Your task to perform on an android device: Open notification settings Image 0: 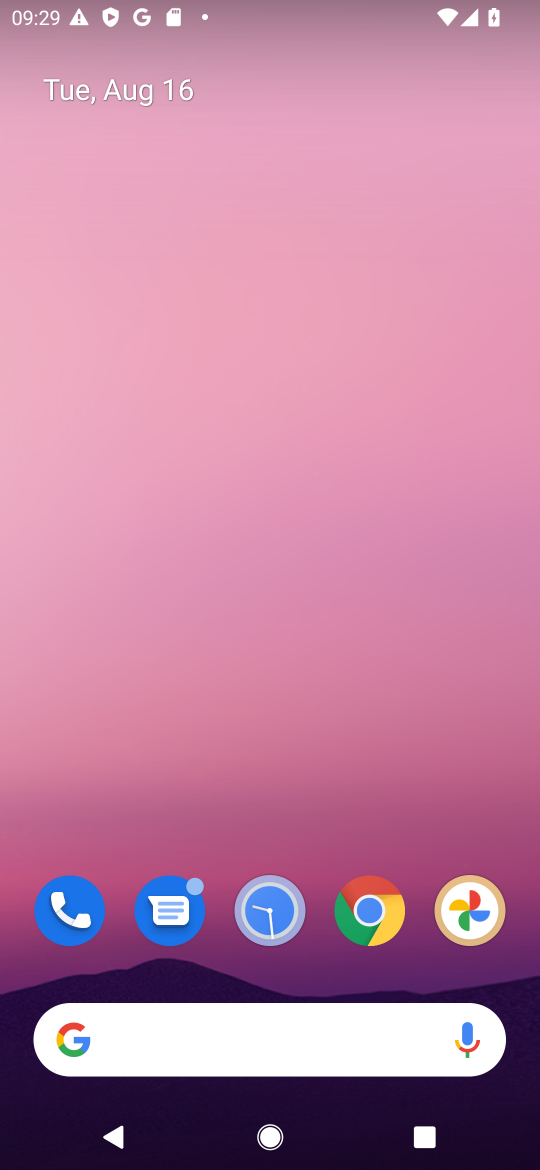
Step 0: drag from (302, 809) to (313, 14)
Your task to perform on an android device: Open notification settings Image 1: 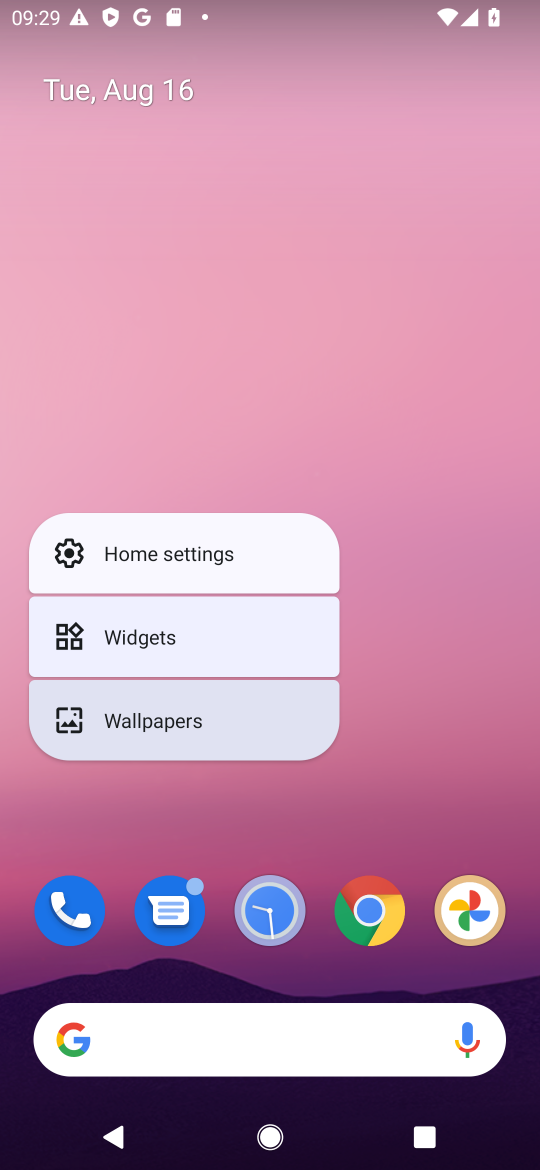
Step 1: click (426, 624)
Your task to perform on an android device: Open notification settings Image 2: 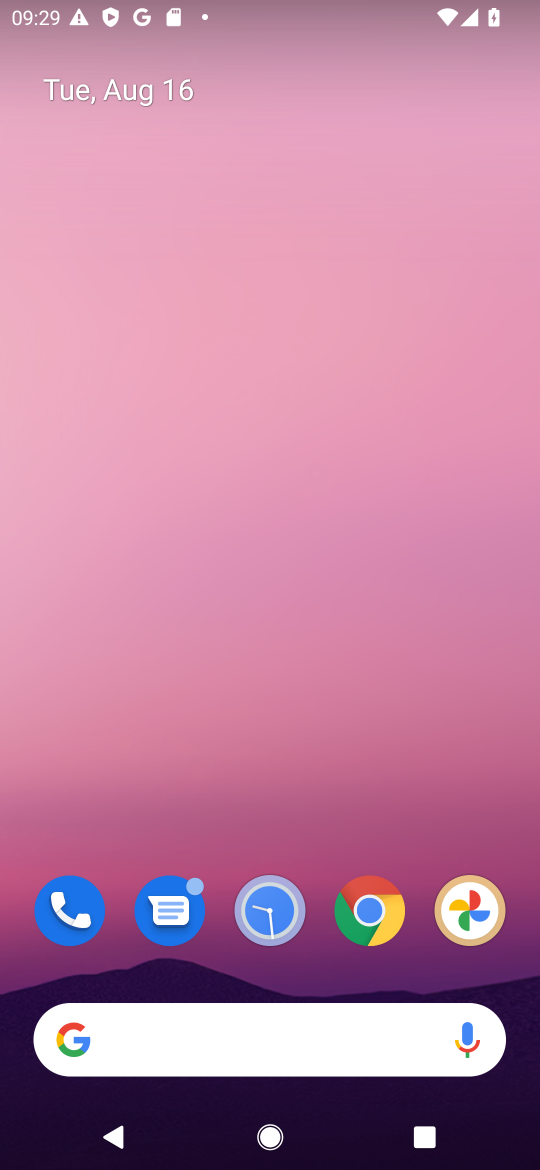
Step 2: drag from (323, 771) to (391, 2)
Your task to perform on an android device: Open notification settings Image 3: 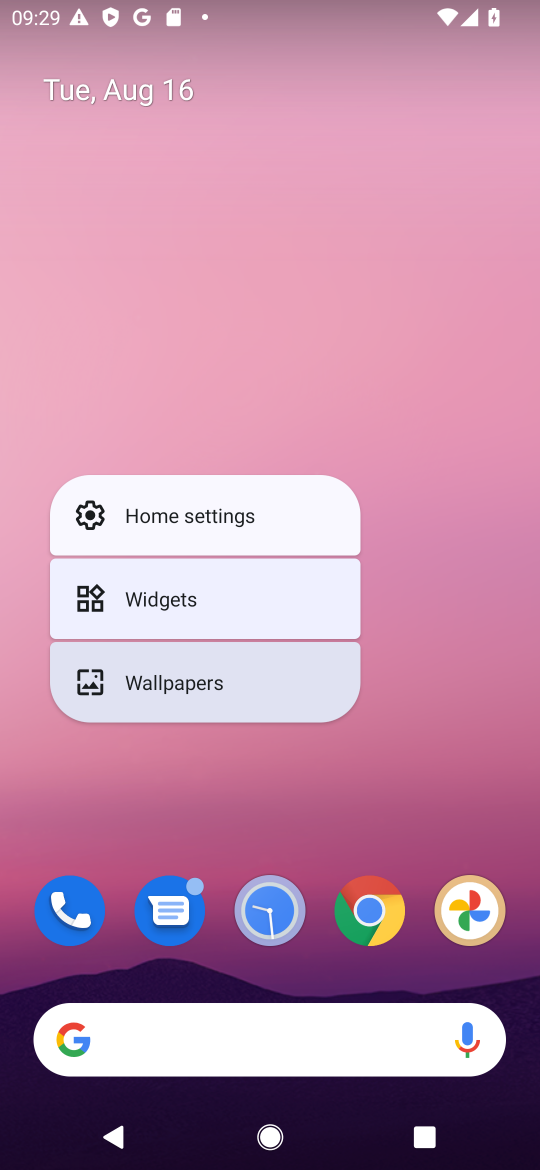
Step 3: click (506, 562)
Your task to perform on an android device: Open notification settings Image 4: 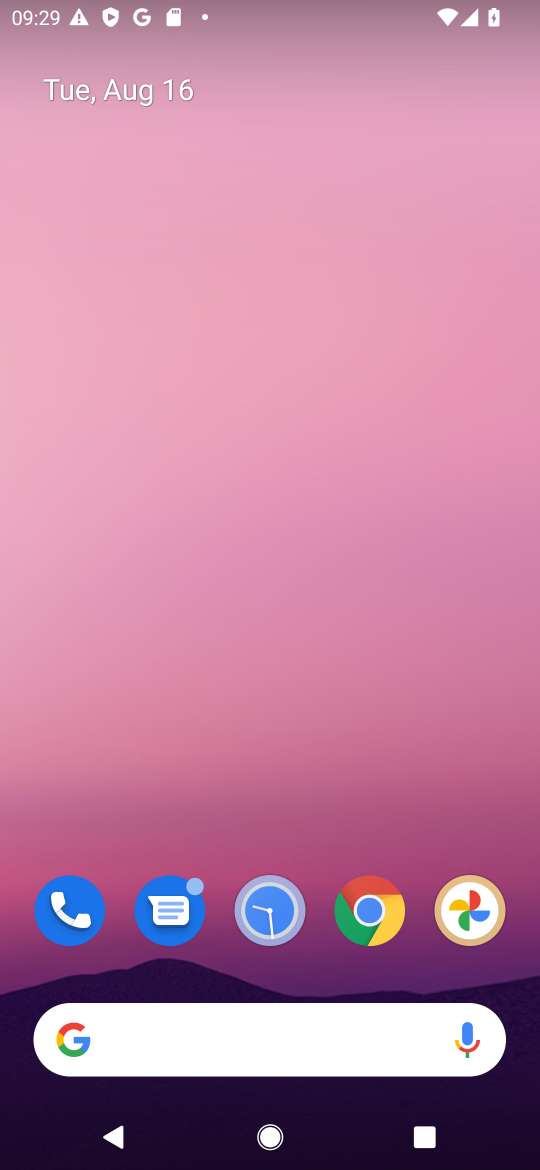
Step 4: drag from (247, 825) to (263, 0)
Your task to perform on an android device: Open notification settings Image 5: 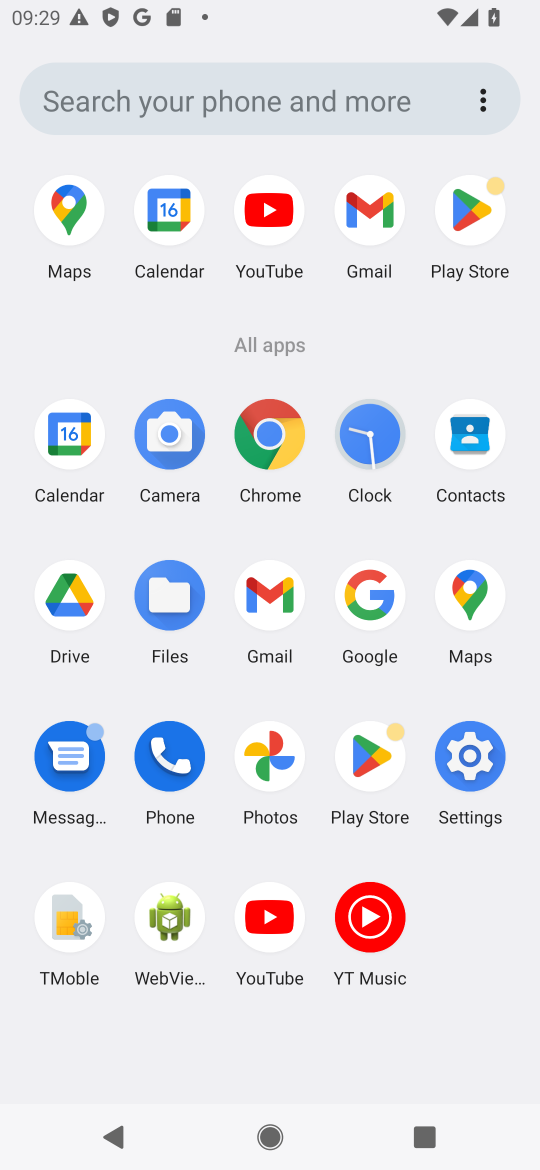
Step 5: click (469, 752)
Your task to perform on an android device: Open notification settings Image 6: 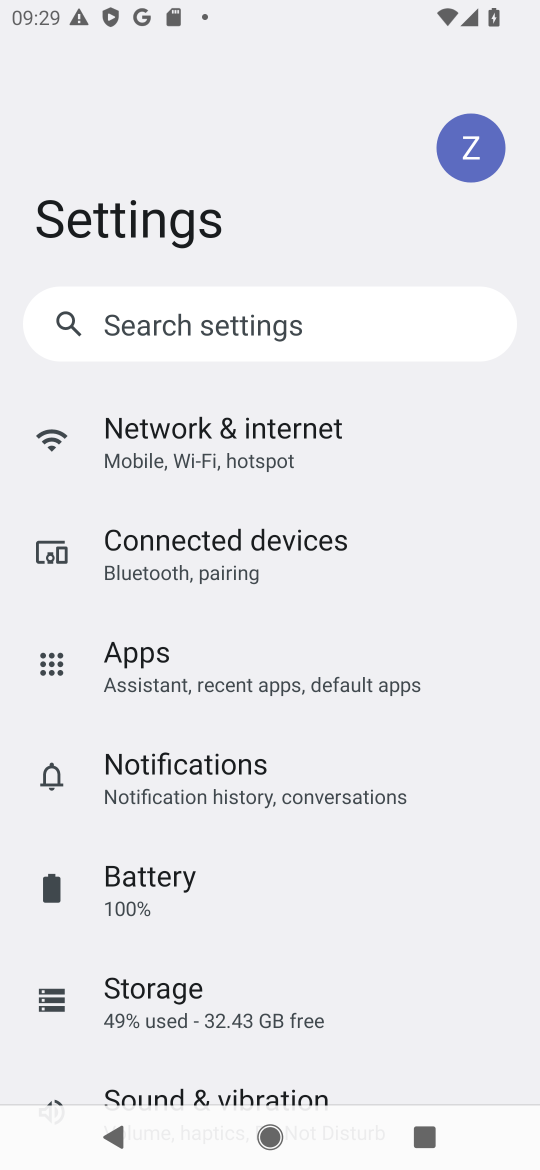
Step 6: click (275, 788)
Your task to perform on an android device: Open notification settings Image 7: 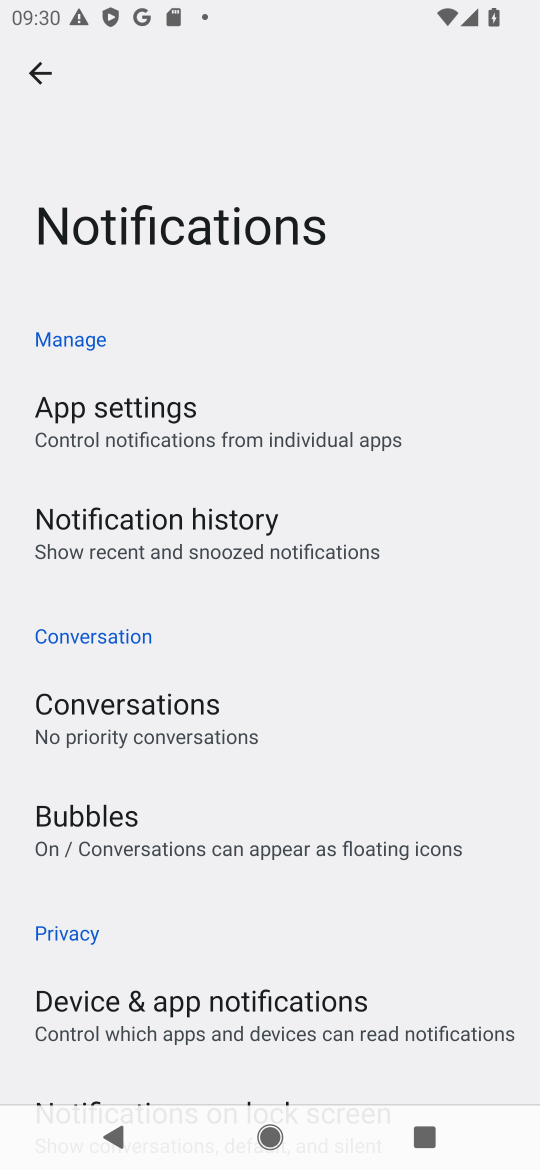
Step 7: task complete